Your task to perform on an android device: turn on translation in the chrome app Image 0: 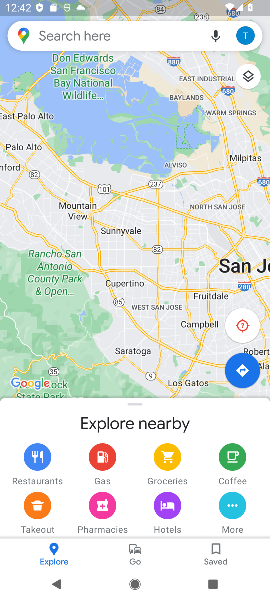
Step 0: press home button
Your task to perform on an android device: turn on translation in the chrome app Image 1: 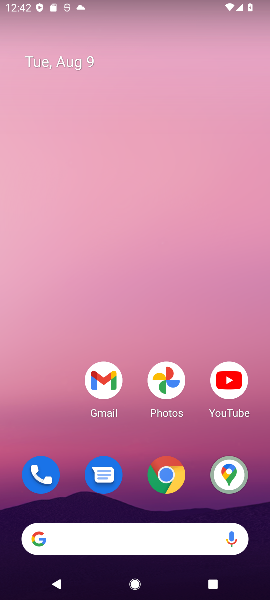
Step 1: click (158, 485)
Your task to perform on an android device: turn on translation in the chrome app Image 2: 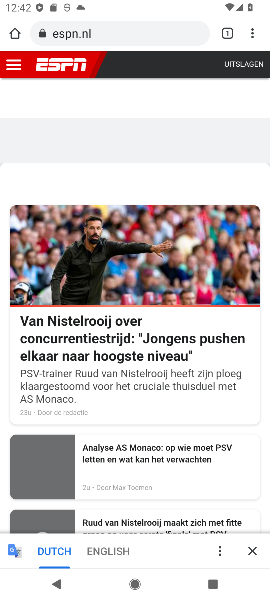
Step 2: click (244, 26)
Your task to perform on an android device: turn on translation in the chrome app Image 3: 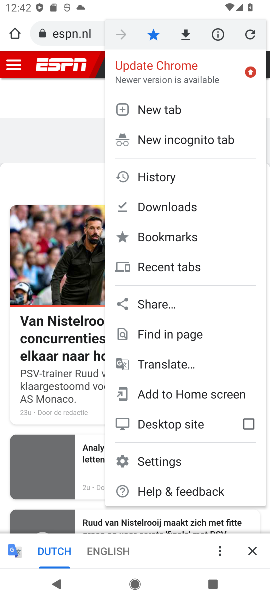
Step 3: click (149, 447)
Your task to perform on an android device: turn on translation in the chrome app Image 4: 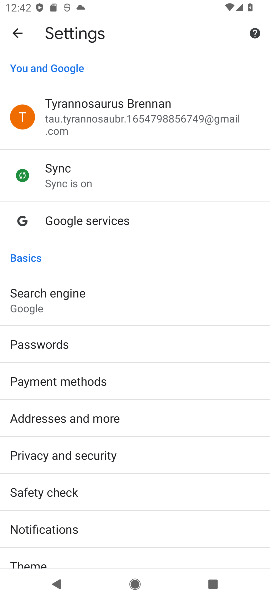
Step 4: drag from (65, 533) to (81, 267)
Your task to perform on an android device: turn on translation in the chrome app Image 5: 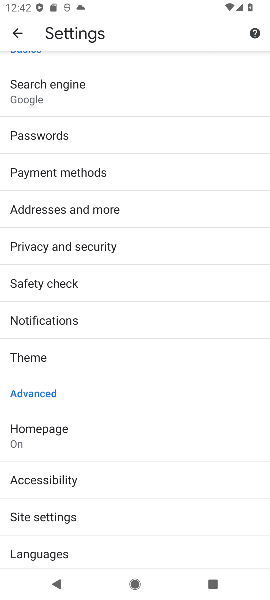
Step 5: click (75, 543)
Your task to perform on an android device: turn on translation in the chrome app Image 6: 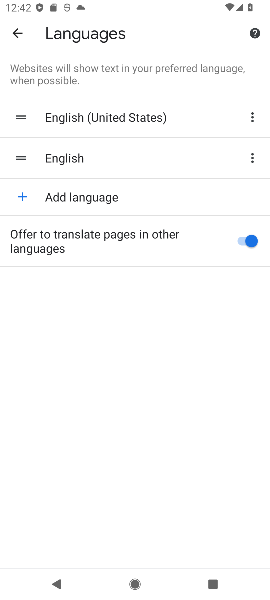
Step 6: task complete